Your task to perform on an android device: Open calendar and show me the second week of next month Image 0: 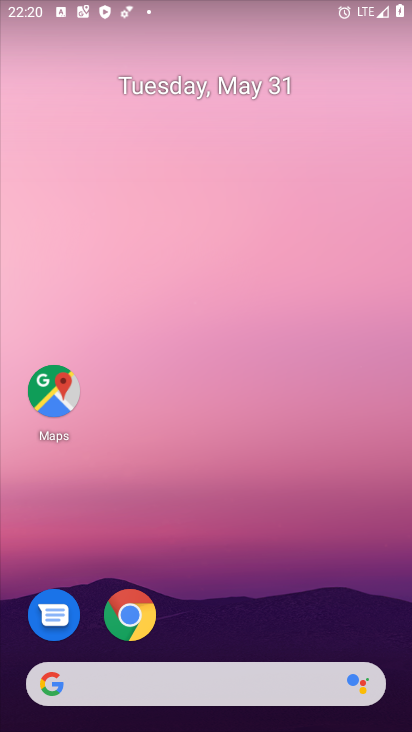
Step 0: drag from (385, 632) to (323, 74)
Your task to perform on an android device: Open calendar and show me the second week of next month Image 1: 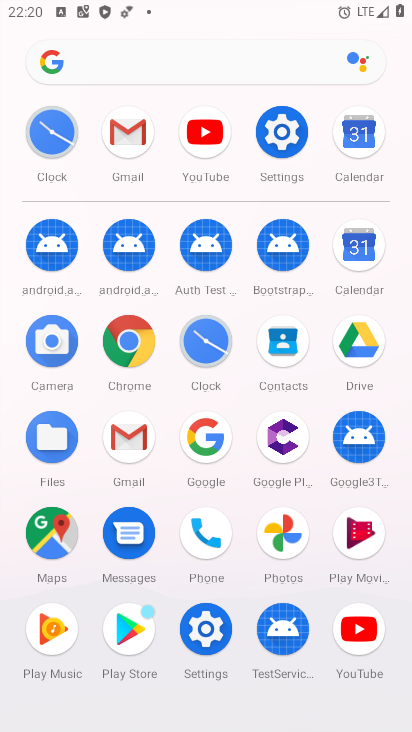
Step 1: click (355, 246)
Your task to perform on an android device: Open calendar and show me the second week of next month Image 2: 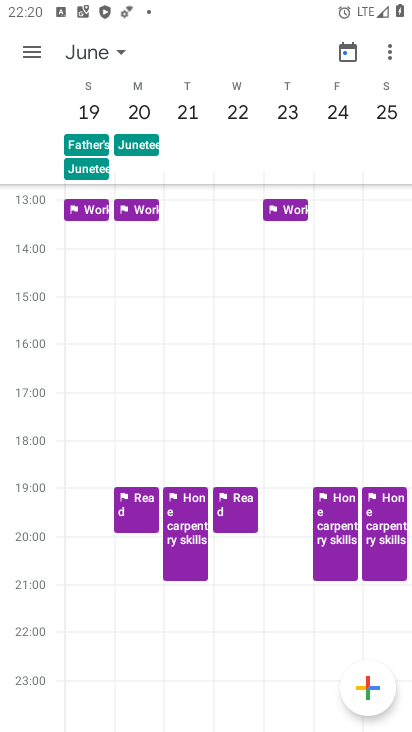
Step 2: click (29, 46)
Your task to perform on an android device: Open calendar and show me the second week of next month Image 3: 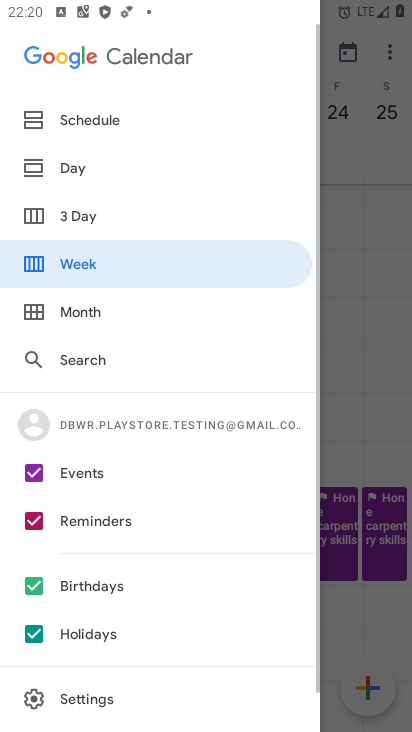
Step 3: click (134, 251)
Your task to perform on an android device: Open calendar and show me the second week of next month Image 4: 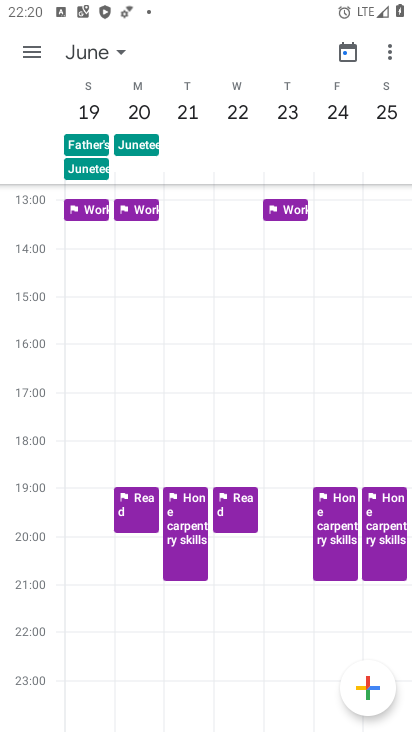
Step 4: click (114, 48)
Your task to perform on an android device: Open calendar and show me the second week of next month Image 5: 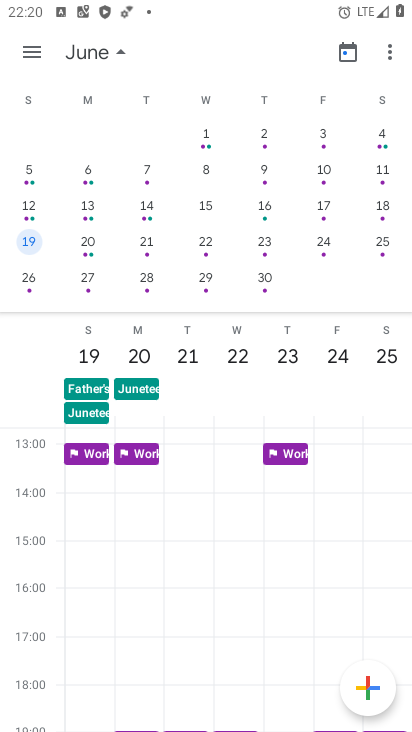
Step 5: click (33, 211)
Your task to perform on an android device: Open calendar and show me the second week of next month Image 6: 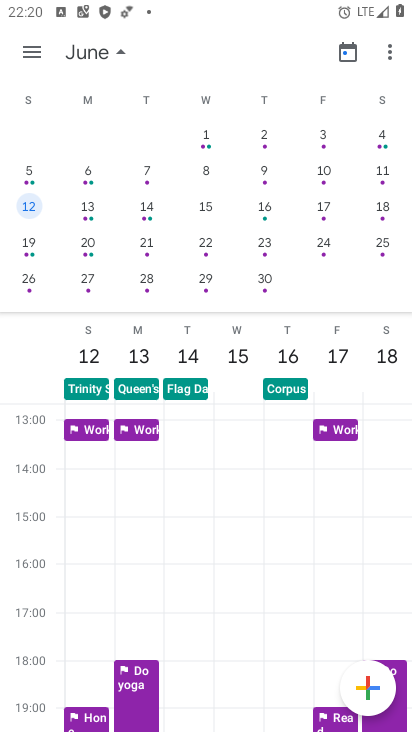
Step 6: task complete